Your task to perform on an android device: change your default location settings in chrome Image 0: 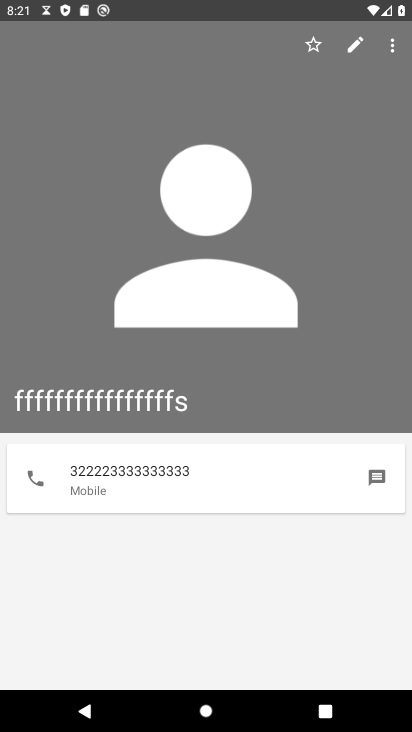
Step 0: press home button
Your task to perform on an android device: change your default location settings in chrome Image 1: 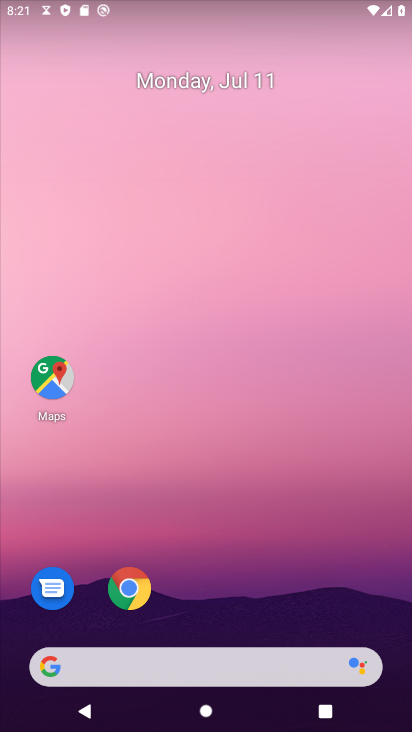
Step 1: click (144, 586)
Your task to perform on an android device: change your default location settings in chrome Image 2: 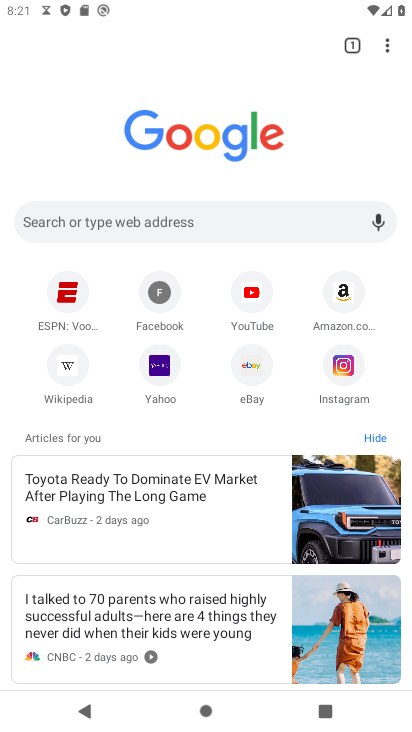
Step 2: drag from (391, 44) to (249, 363)
Your task to perform on an android device: change your default location settings in chrome Image 3: 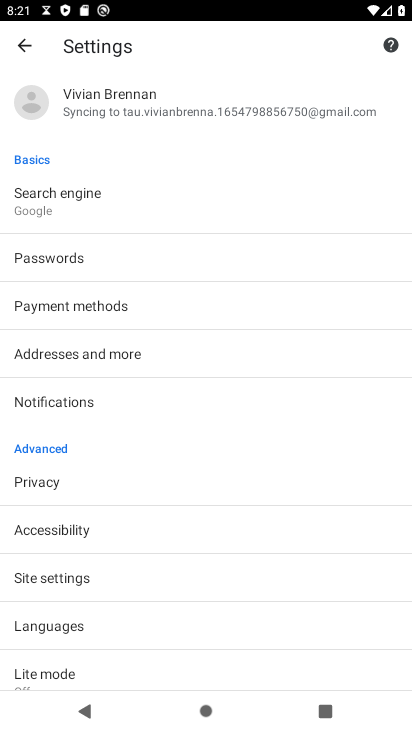
Step 3: click (81, 581)
Your task to perform on an android device: change your default location settings in chrome Image 4: 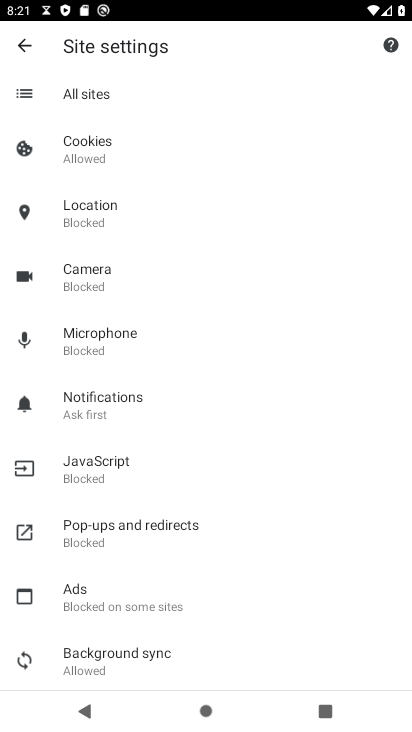
Step 4: click (120, 208)
Your task to perform on an android device: change your default location settings in chrome Image 5: 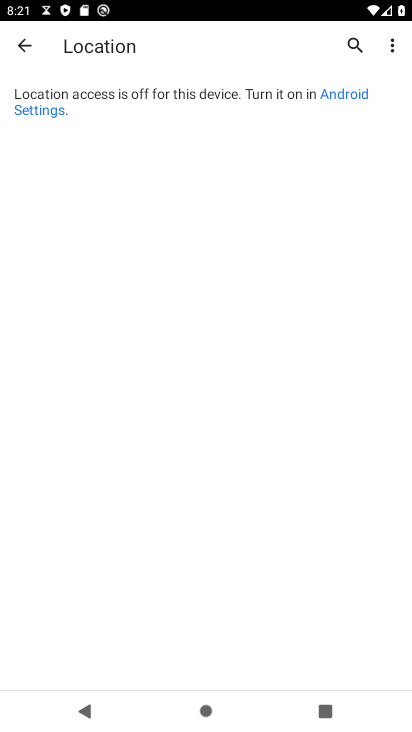
Step 5: click (342, 93)
Your task to perform on an android device: change your default location settings in chrome Image 6: 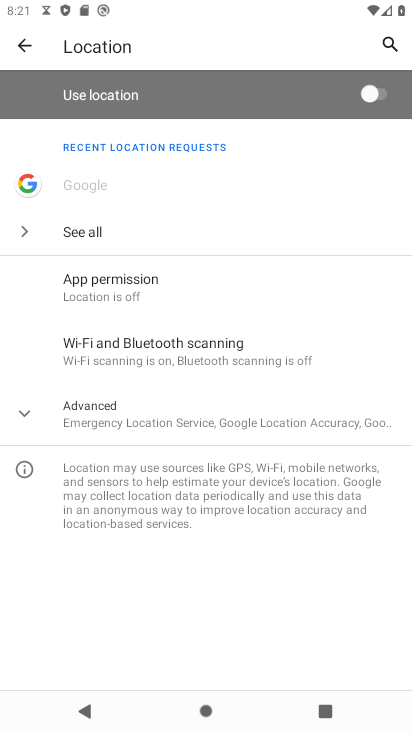
Step 6: click (383, 90)
Your task to perform on an android device: change your default location settings in chrome Image 7: 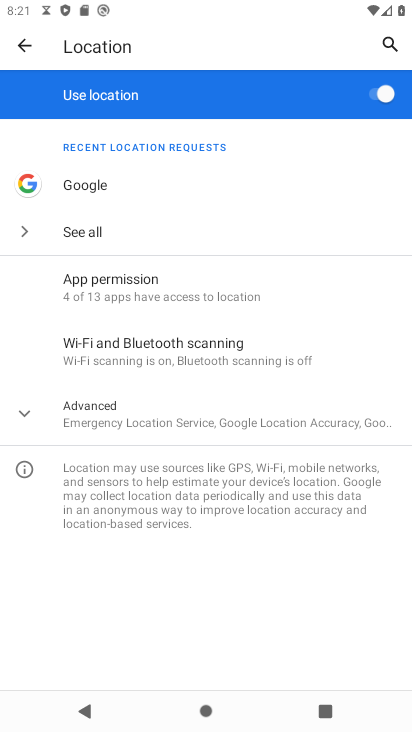
Step 7: task complete